Your task to perform on an android device: turn on bluetooth scan Image 0: 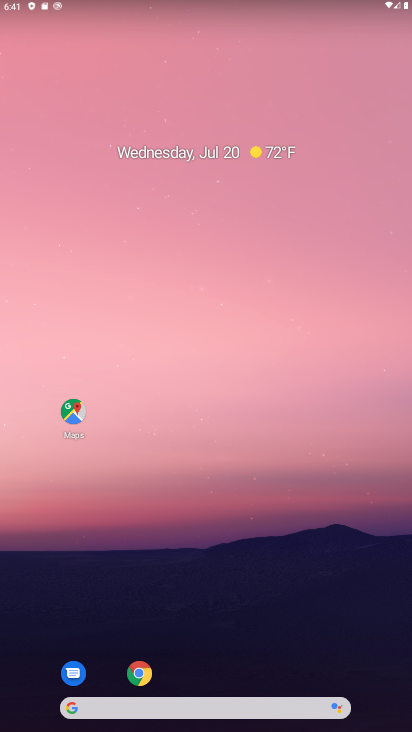
Step 0: drag from (397, 684) to (226, 12)
Your task to perform on an android device: turn on bluetooth scan Image 1: 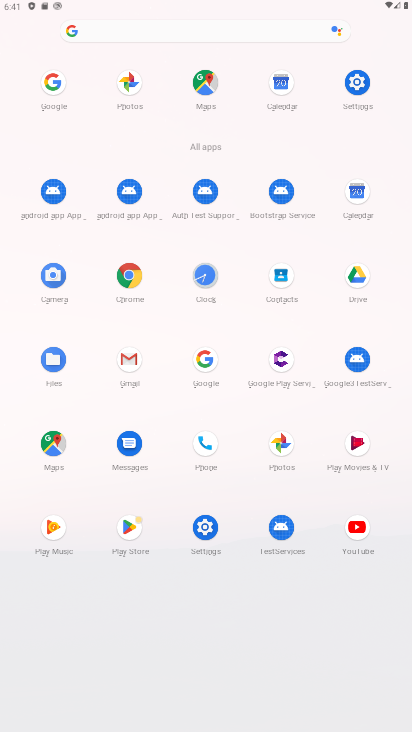
Step 1: click (201, 526)
Your task to perform on an android device: turn on bluetooth scan Image 2: 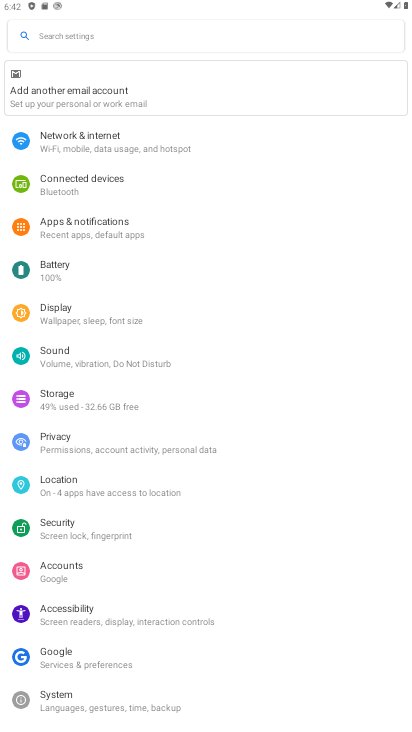
Step 2: click (64, 479)
Your task to perform on an android device: turn on bluetooth scan Image 3: 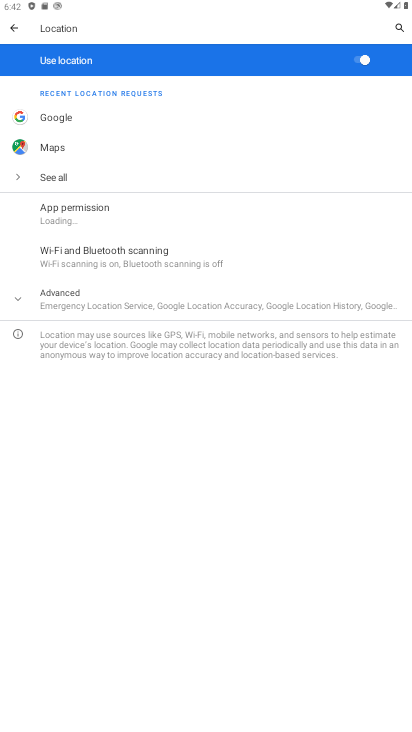
Step 3: click (127, 257)
Your task to perform on an android device: turn on bluetooth scan Image 4: 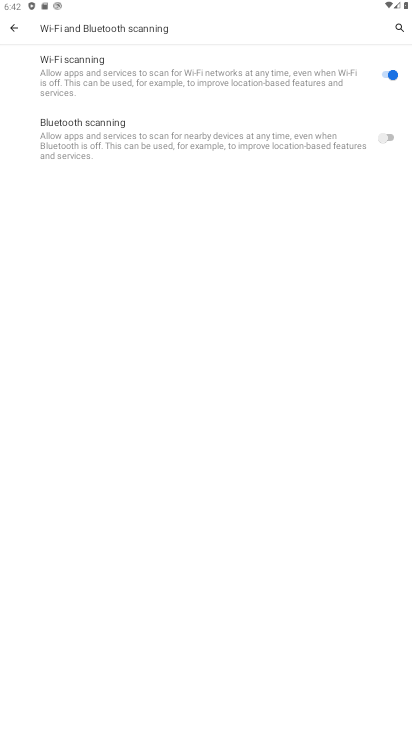
Step 4: click (385, 136)
Your task to perform on an android device: turn on bluetooth scan Image 5: 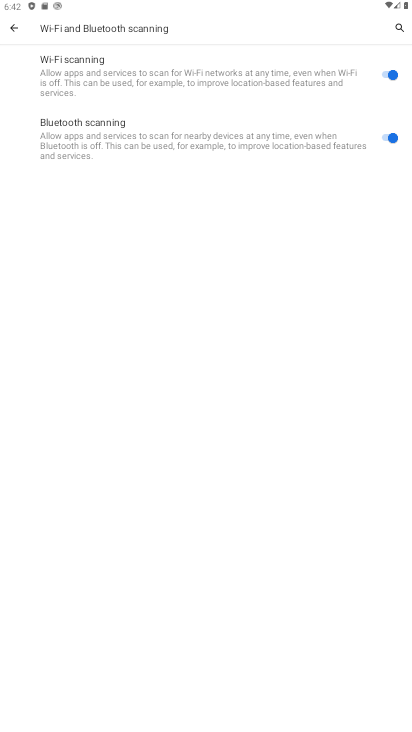
Step 5: task complete